Your task to perform on an android device: Open settings on Google Maps Image 0: 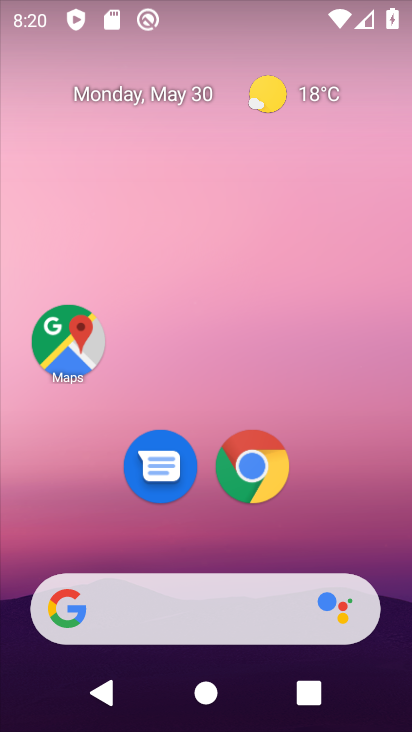
Step 0: drag from (310, 517) to (247, 73)
Your task to perform on an android device: Open settings on Google Maps Image 1: 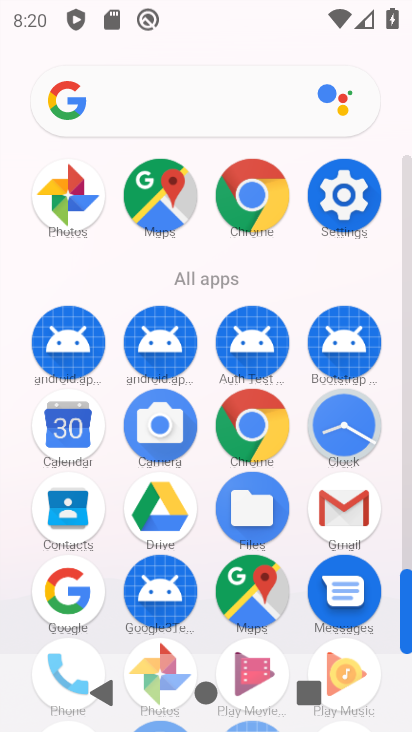
Step 1: click (171, 186)
Your task to perform on an android device: Open settings on Google Maps Image 2: 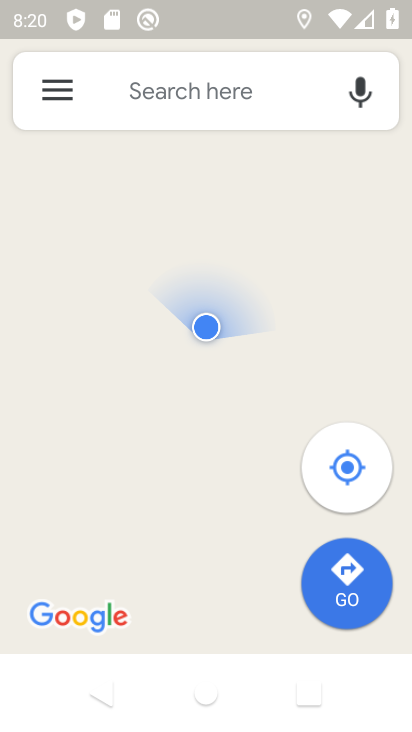
Step 2: click (40, 85)
Your task to perform on an android device: Open settings on Google Maps Image 3: 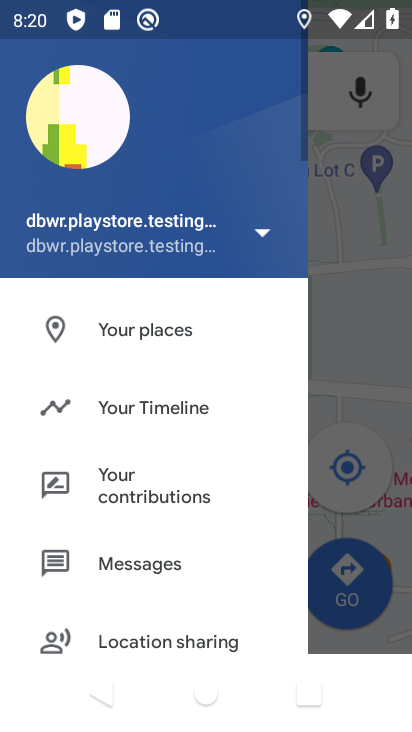
Step 3: click (113, 400)
Your task to perform on an android device: Open settings on Google Maps Image 4: 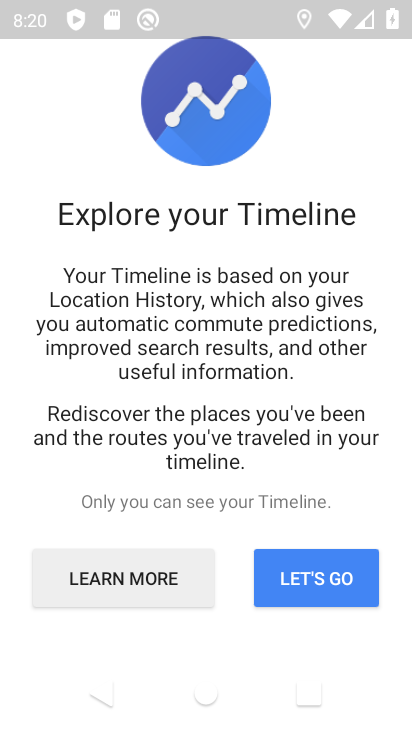
Step 4: click (361, 535)
Your task to perform on an android device: Open settings on Google Maps Image 5: 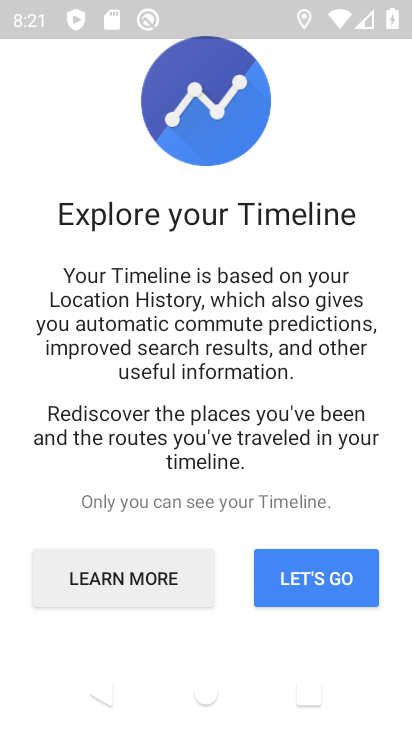
Step 5: click (316, 576)
Your task to perform on an android device: Open settings on Google Maps Image 6: 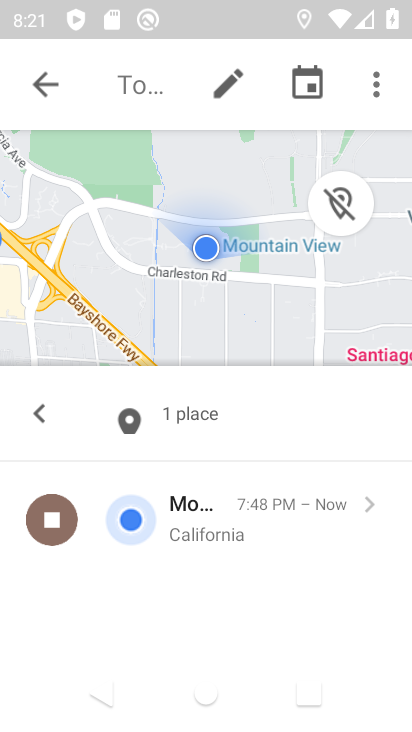
Step 6: click (46, 77)
Your task to perform on an android device: Open settings on Google Maps Image 7: 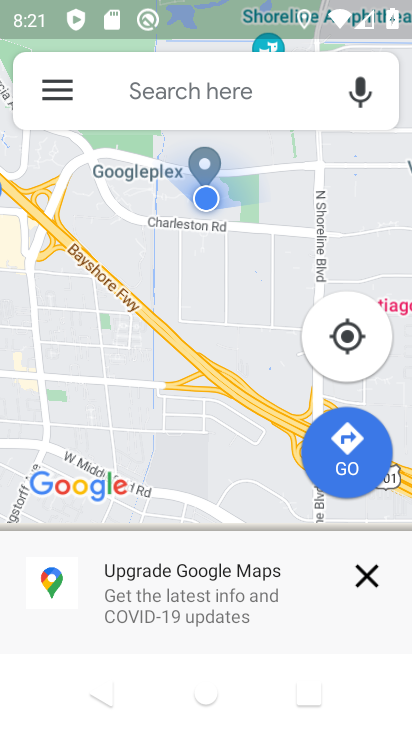
Step 7: click (41, 82)
Your task to perform on an android device: Open settings on Google Maps Image 8: 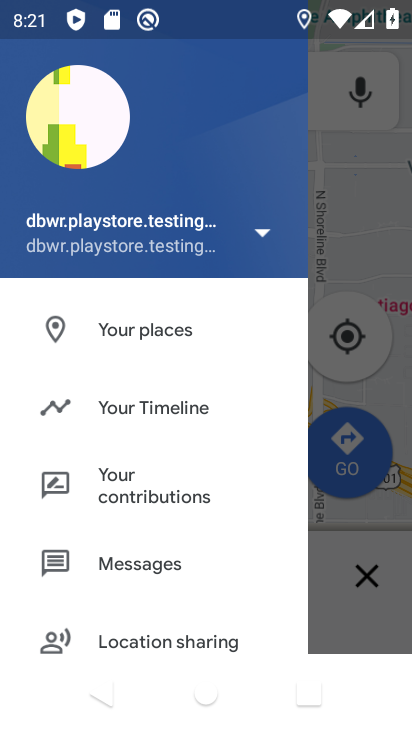
Step 8: drag from (94, 600) to (213, 171)
Your task to perform on an android device: Open settings on Google Maps Image 9: 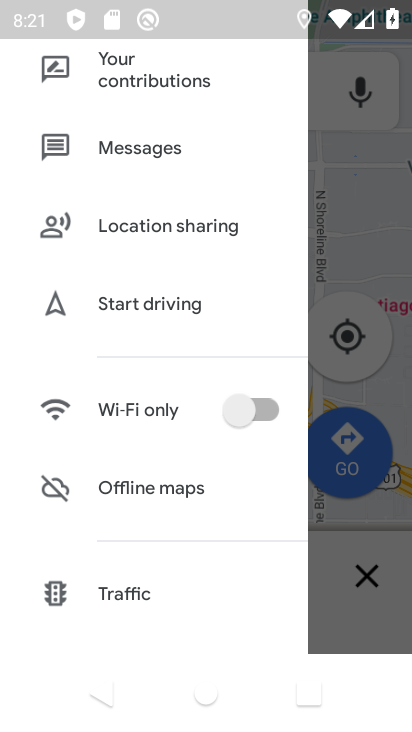
Step 9: drag from (128, 583) to (168, 219)
Your task to perform on an android device: Open settings on Google Maps Image 10: 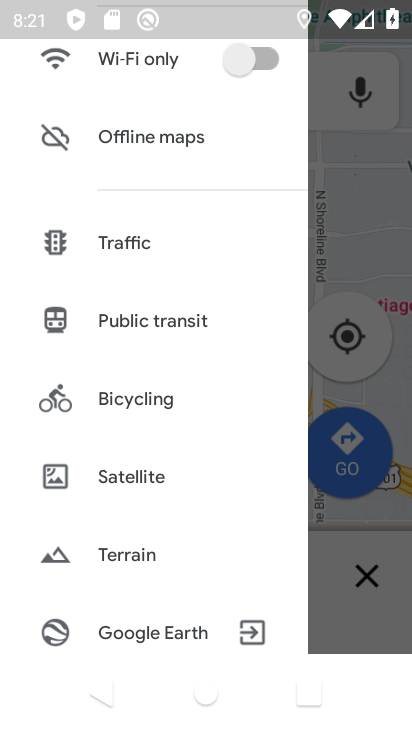
Step 10: drag from (118, 517) to (177, 127)
Your task to perform on an android device: Open settings on Google Maps Image 11: 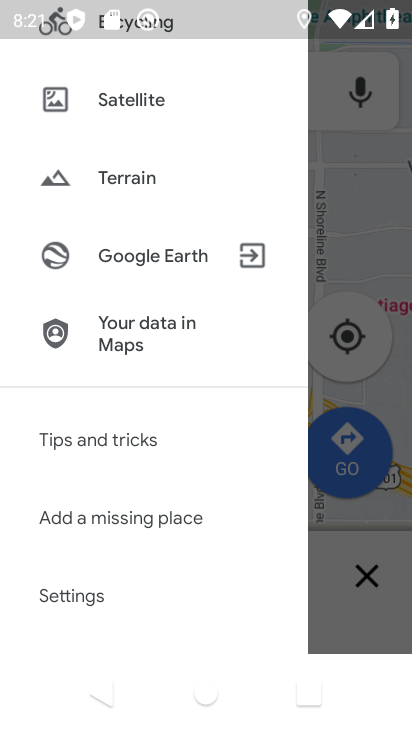
Step 11: click (75, 596)
Your task to perform on an android device: Open settings on Google Maps Image 12: 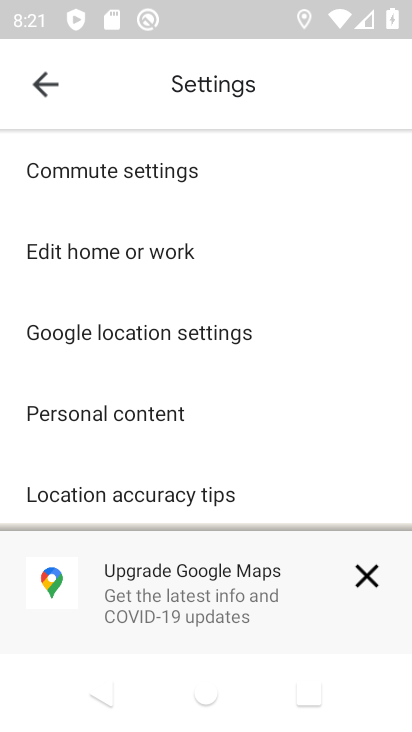
Step 12: task complete